Your task to perform on an android device: Go to settings Image 0: 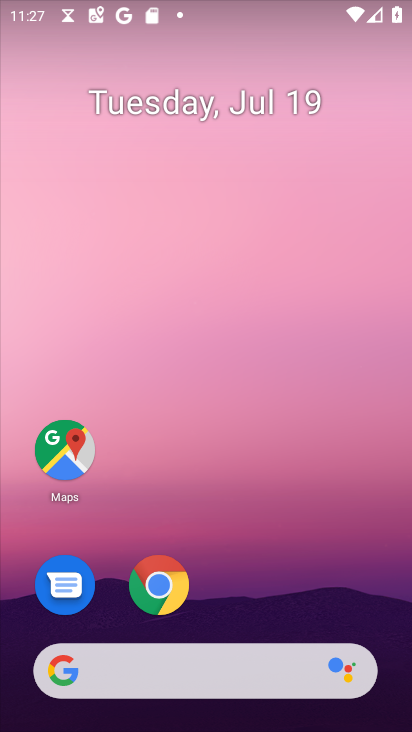
Step 0: press home button
Your task to perform on an android device: Go to settings Image 1: 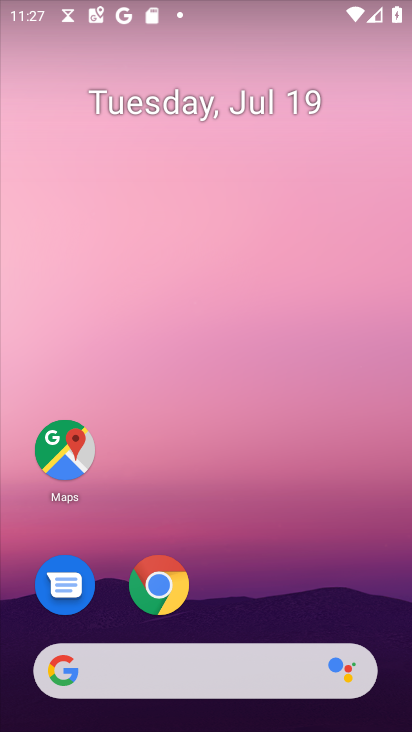
Step 1: drag from (190, 676) to (324, 0)
Your task to perform on an android device: Go to settings Image 2: 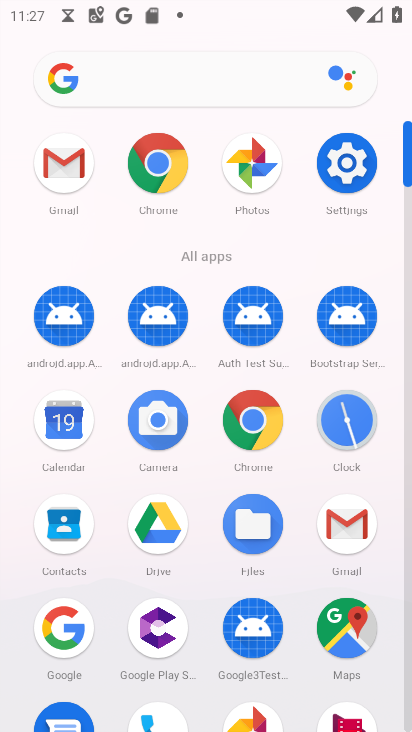
Step 2: click (348, 165)
Your task to perform on an android device: Go to settings Image 3: 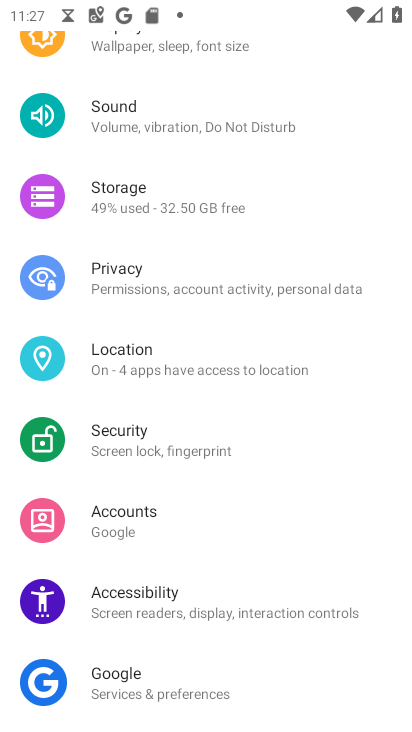
Step 3: task complete